Your task to perform on an android device: What's the weather going to be tomorrow? Image 0: 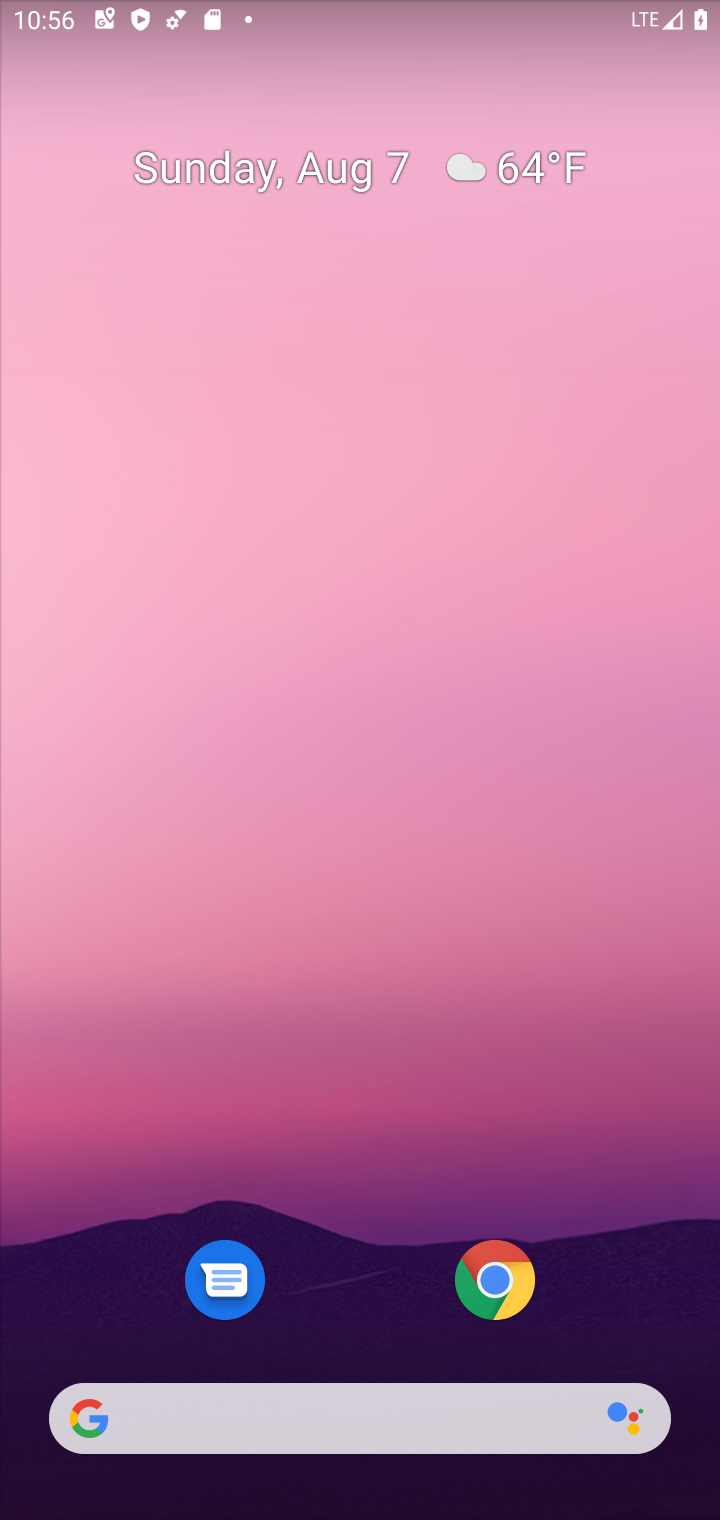
Step 0: click (240, 1396)
Your task to perform on an android device: What's the weather going to be tomorrow? Image 1: 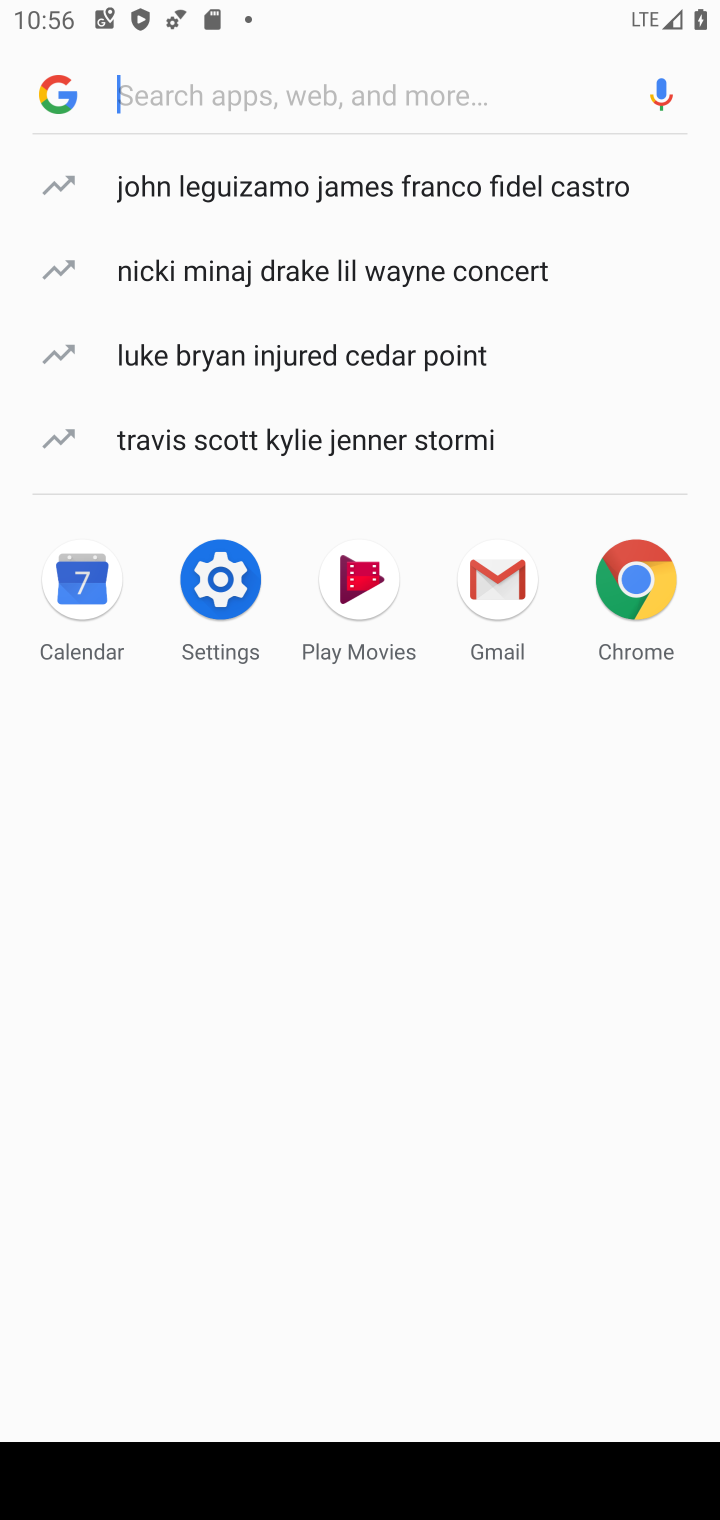
Step 1: click (259, 91)
Your task to perform on an android device: What's the weather going to be tomorrow? Image 2: 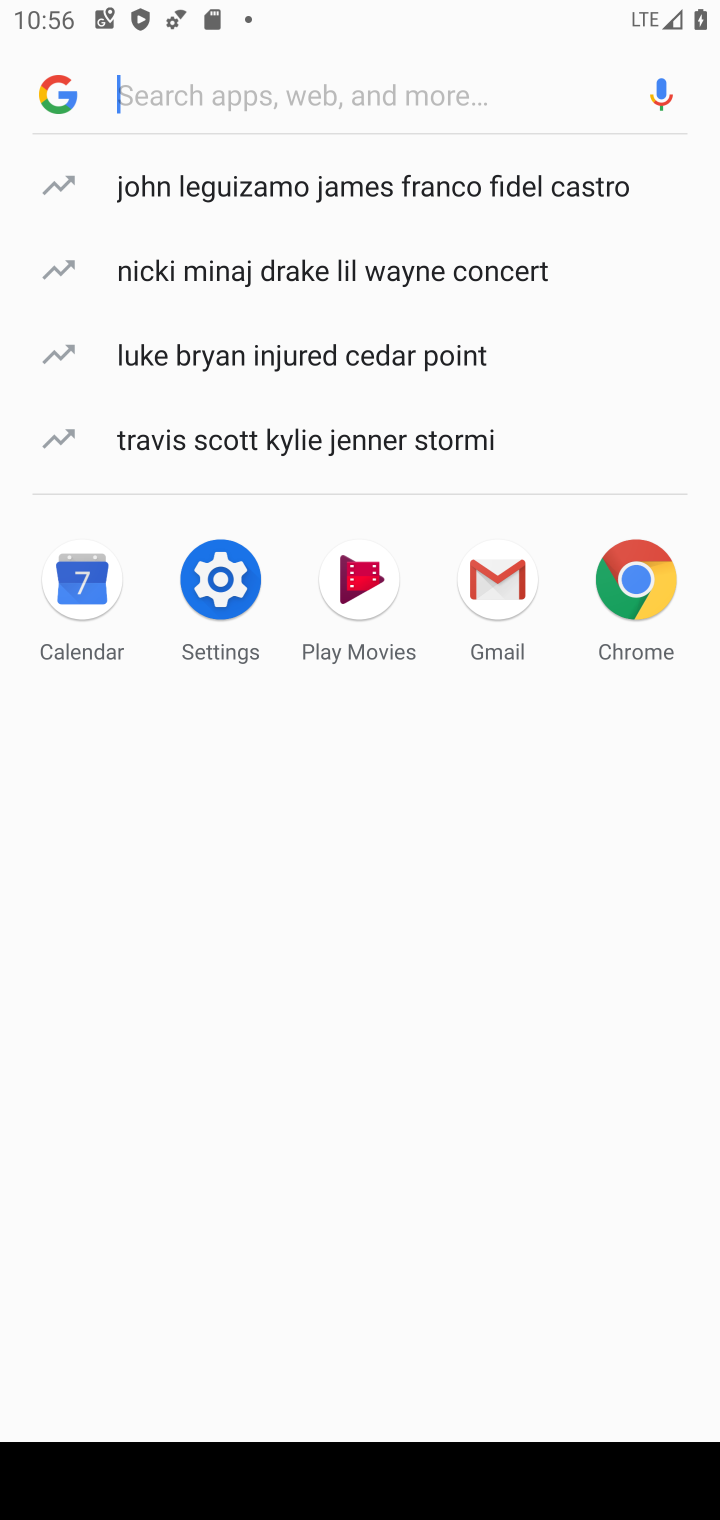
Step 2: type "weather"
Your task to perform on an android device: What's the weather going to be tomorrow? Image 3: 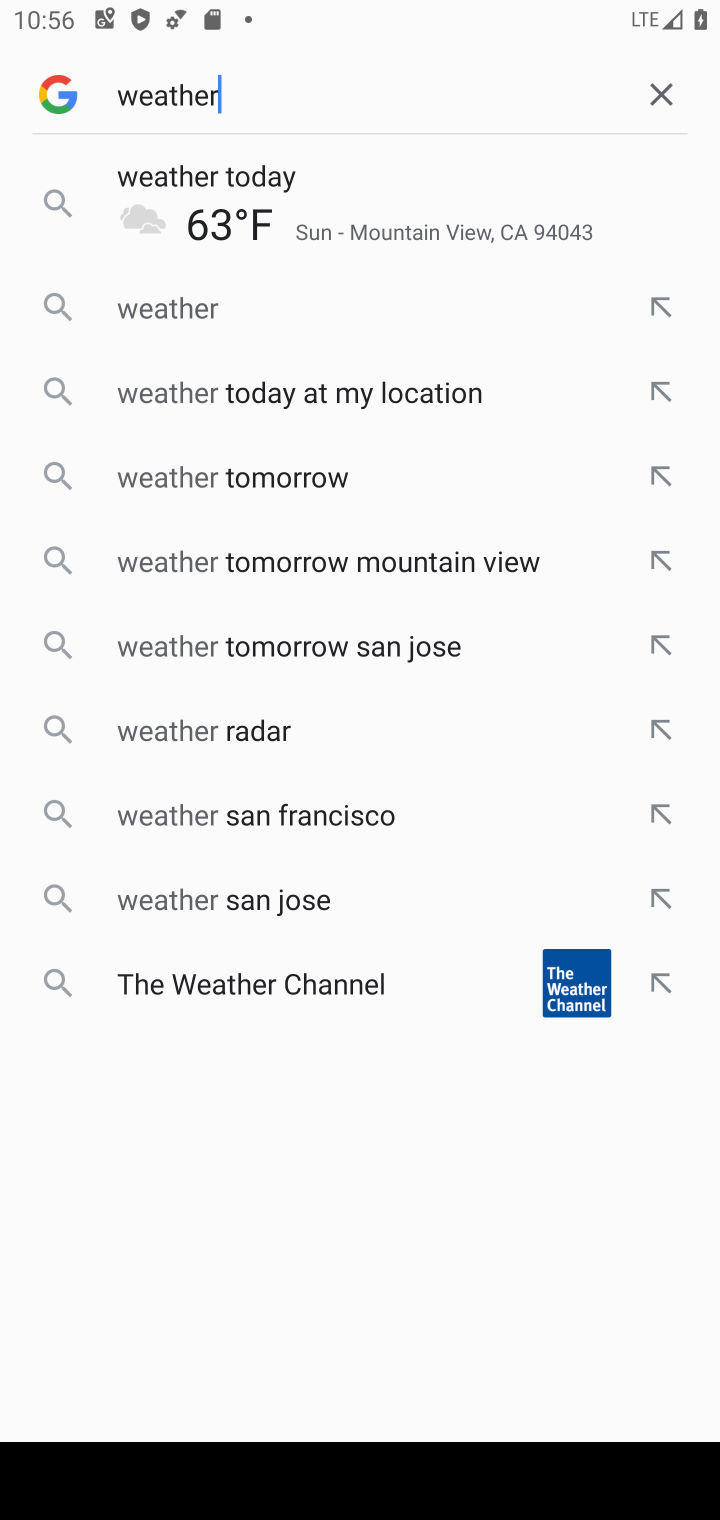
Step 3: click (272, 192)
Your task to perform on an android device: What's the weather going to be tomorrow? Image 4: 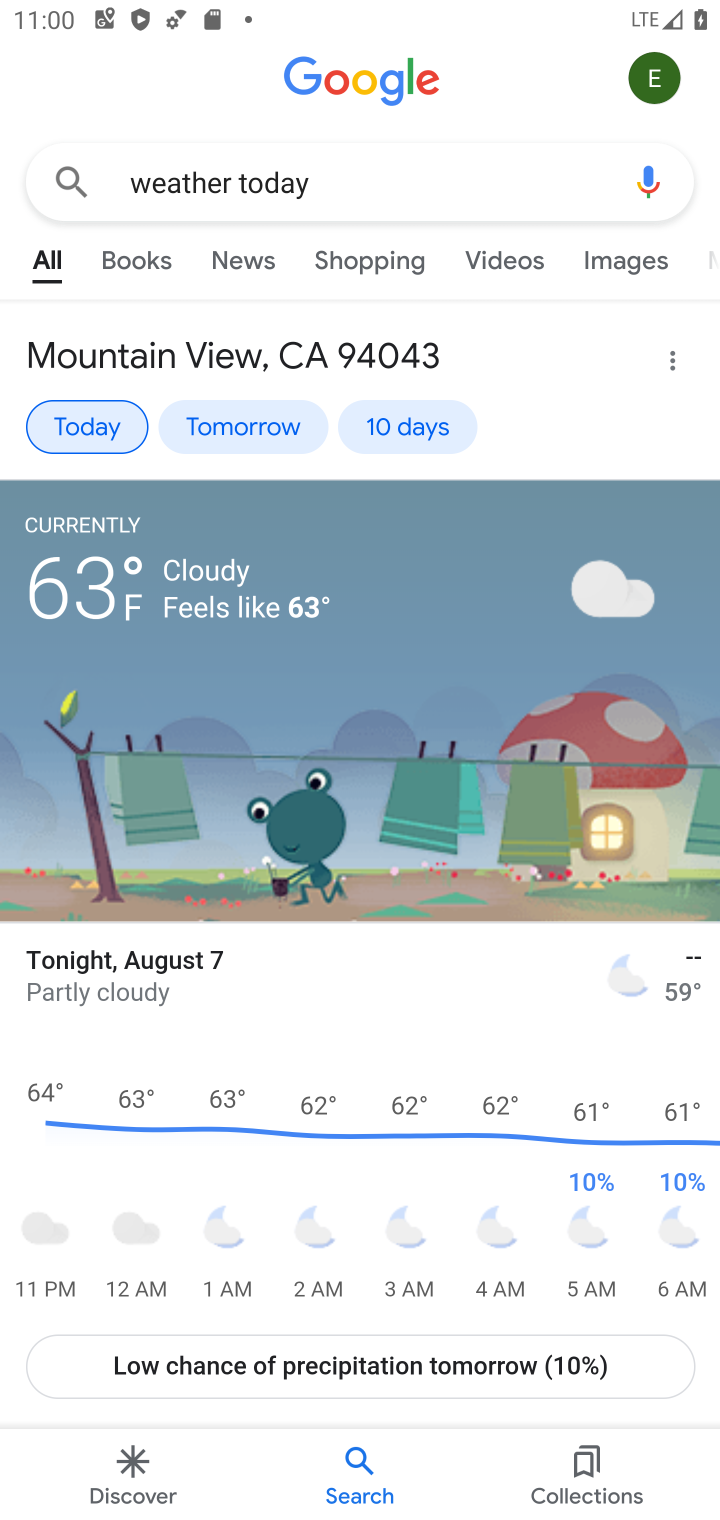
Step 4: click (251, 430)
Your task to perform on an android device: What's the weather going to be tomorrow? Image 5: 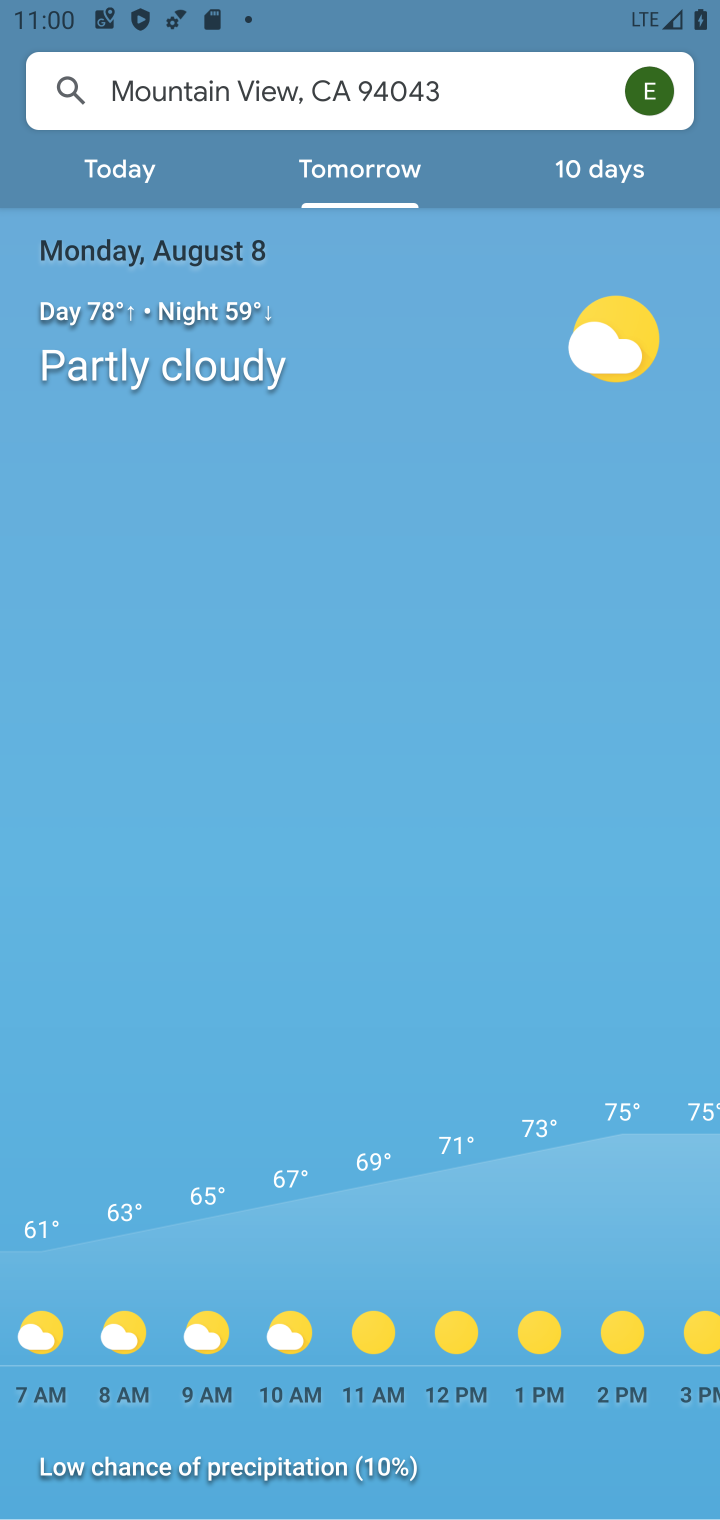
Step 5: task complete